Your task to perform on an android device: turn off notifications in google photos Image 0: 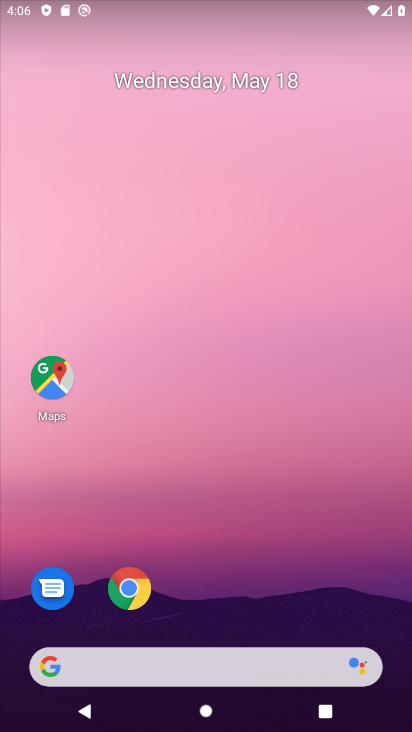
Step 0: drag from (289, 550) to (317, 156)
Your task to perform on an android device: turn off notifications in google photos Image 1: 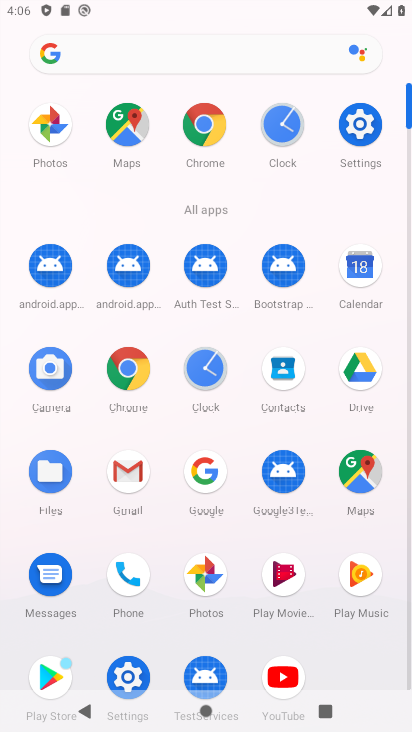
Step 1: click (220, 572)
Your task to perform on an android device: turn off notifications in google photos Image 2: 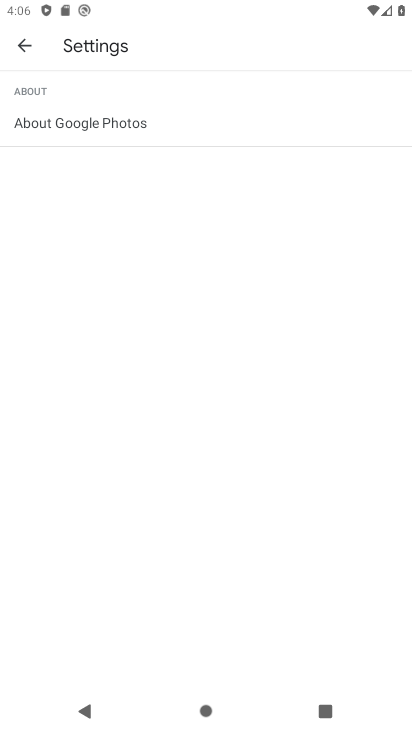
Step 2: click (15, 51)
Your task to perform on an android device: turn off notifications in google photos Image 3: 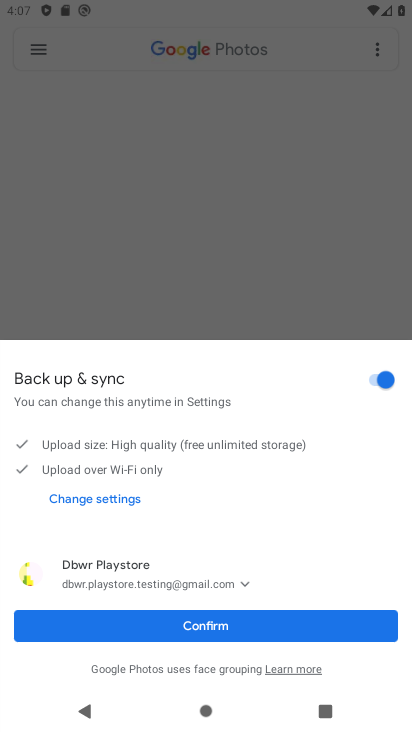
Step 3: click (300, 625)
Your task to perform on an android device: turn off notifications in google photos Image 4: 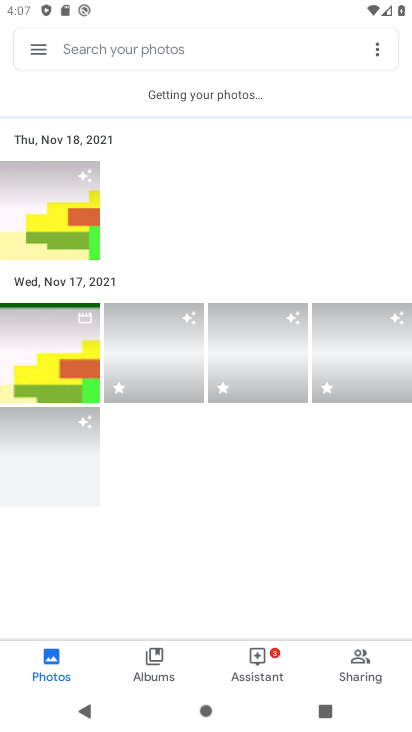
Step 4: click (49, 47)
Your task to perform on an android device: turn off notifications in google photos Image 5: 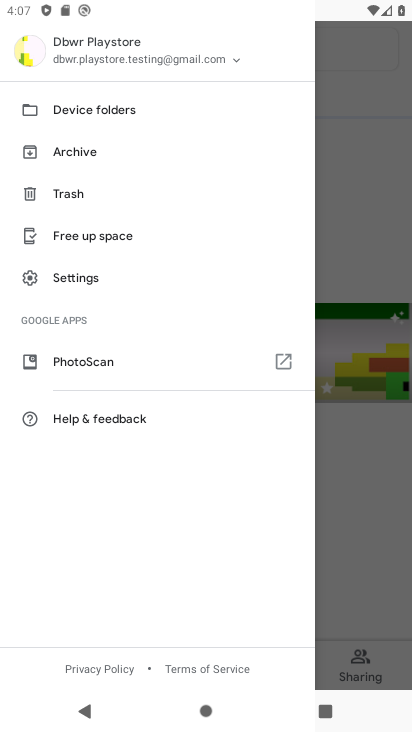
Step 5: click (74, 279)
Your task to perform on an android device: turn off notifications in google photos Image 6: 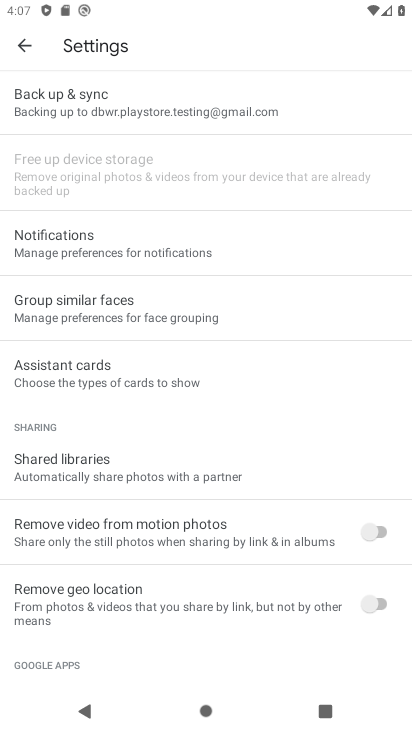
Step 6: click (108, 256)
Your task to perform on an android device: turn off notifications in google photos Image 7: 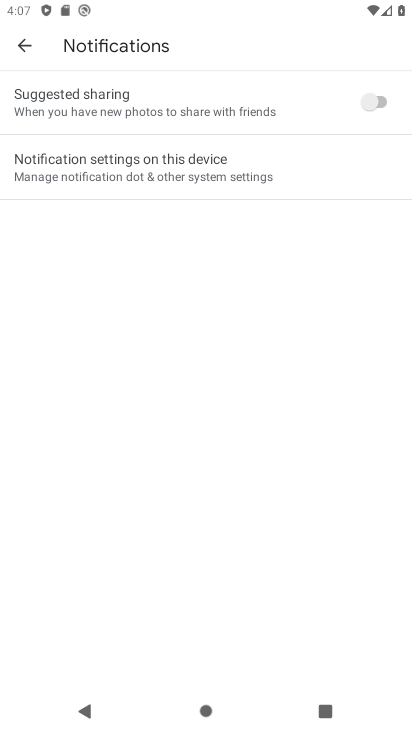
Step 7: click (140, 167)
Your task to perform on an android device: turn off notifications in google photos Image 8: 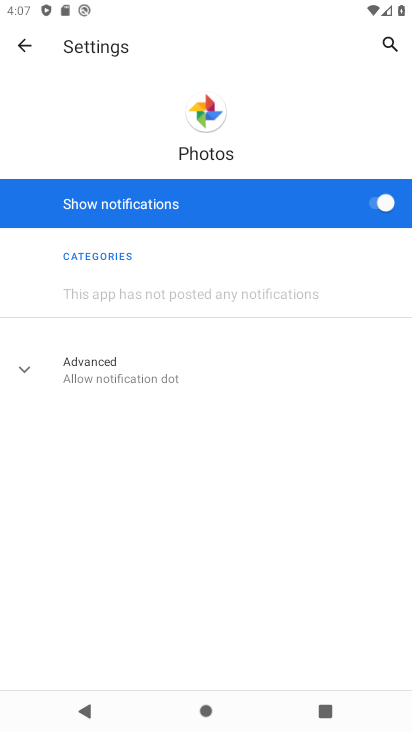
Step 8: click (387, 192)
Your task to perform on an android device: turn off notifications in google photos Image 9: 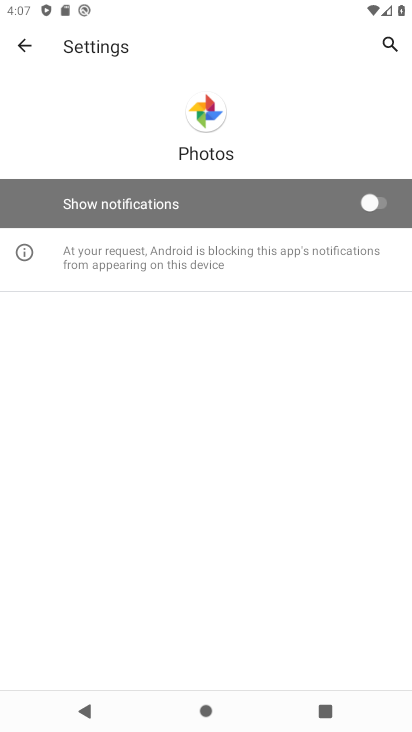
Step 9: task complete